Your task to perform on an android device: Open CNN.com Image 0: 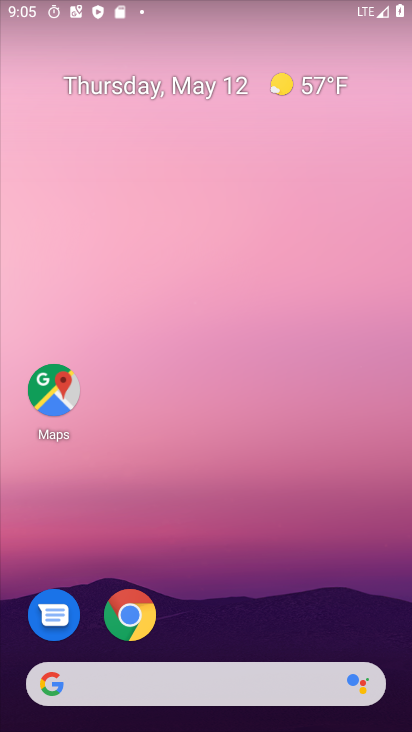
Step 0: drag from (233, 536) to (190, 6)
Your task to perform on an android device: Open CNN.com Image 1: 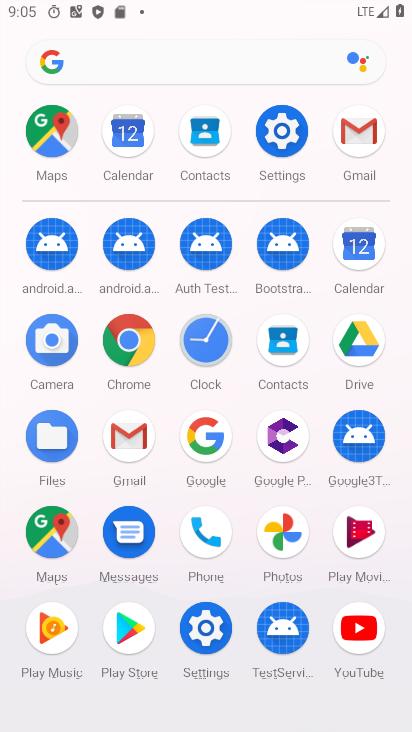
Step 1: drag from (11, 545) to (14, 191)
Your task to perform on an android device: Open CNN.com Image 2: 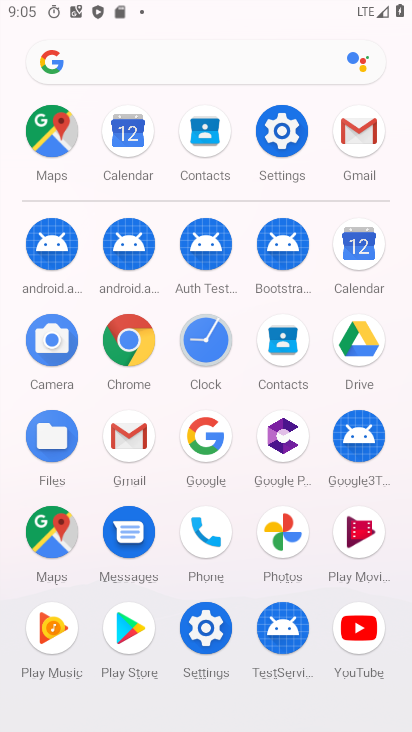
Step 2: drag from (2, 516) to (14, 199)
Your task to perform on an android device: Open CNN.com Image 3: 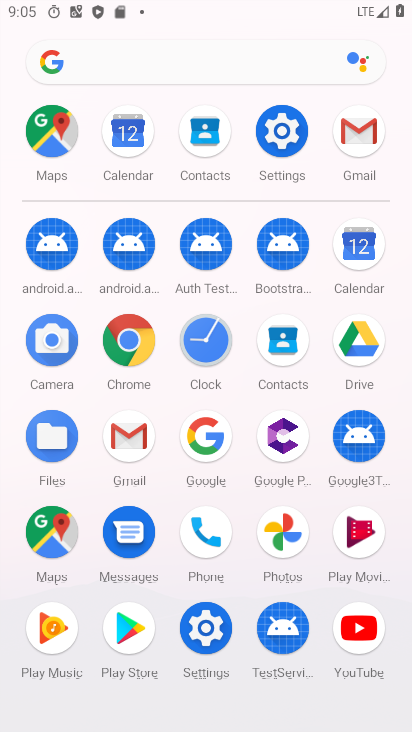
Step 3: click (125, 338)
Your task to perform on an android device: Open CNN.com Image 4: 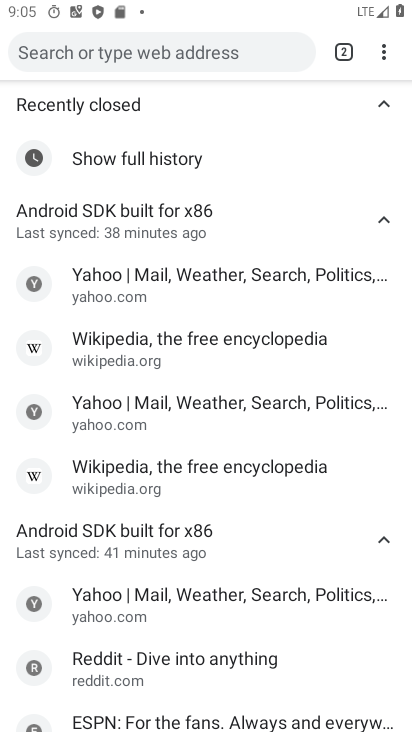
Step 4: click (216, 54)
Your task to perform on an android device: Open CNN.com Image 5: 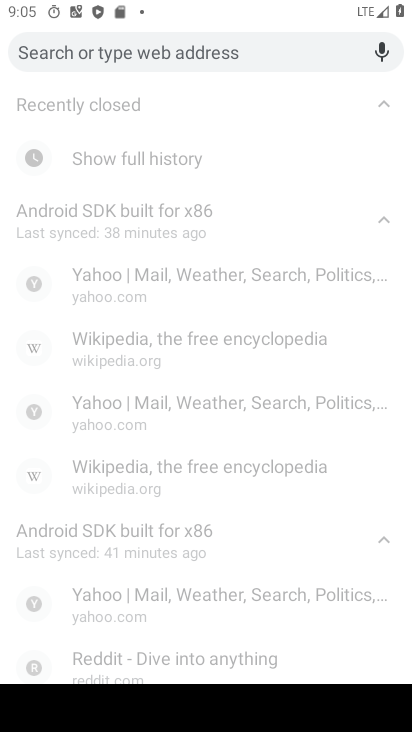
Step 5: type "CNN.com"
Your task to perform on an android device: Open CNN.com Image 6: 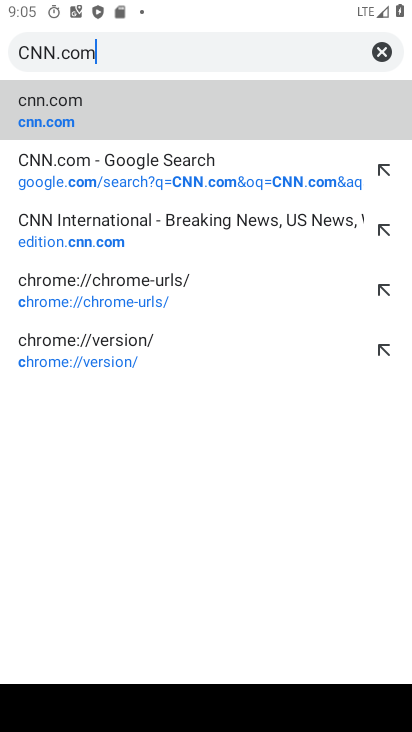
Step 6: type ""
Your task to perform on an android device: Open CNN.com Image 7: 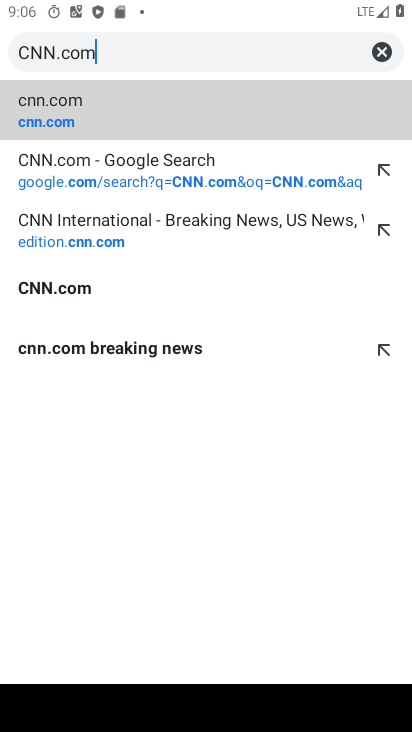
Step 7: click (68, 123)
Your task to perform on an android device: Open CNN.com Image 8: 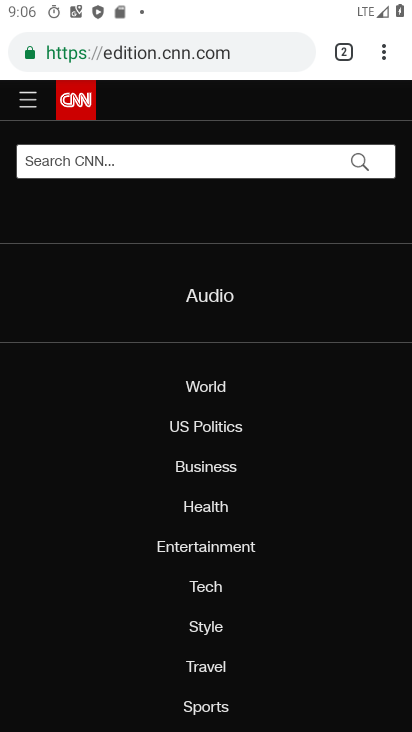
Step 8: task complete